Your task to perform on an android device: Go to calendar. Show me events next week Image 0: 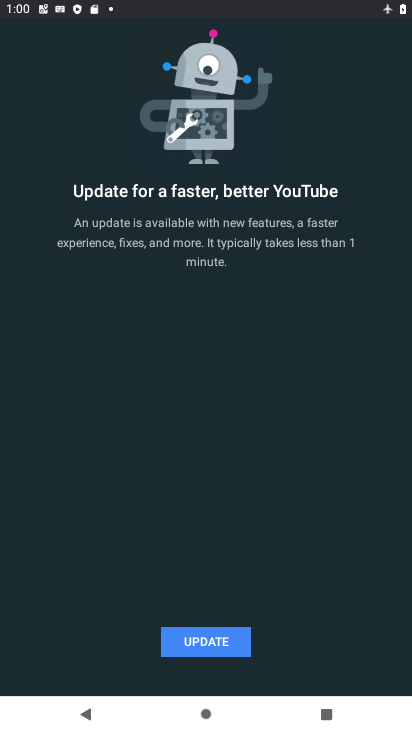
Step 0: press home button
Your task to perform on an android device: Go to calendar. Show me events next week Image 1: 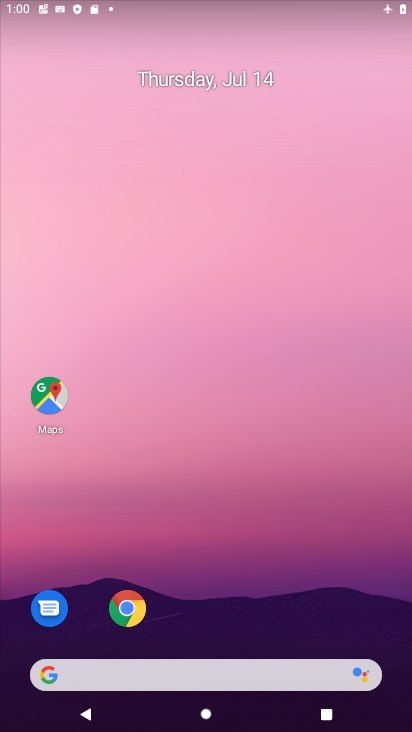
Step 1: drag from (384, 634) to (350, 93)
Your task to perform on an android device: Go to calendar. Show me events next week Image 2: 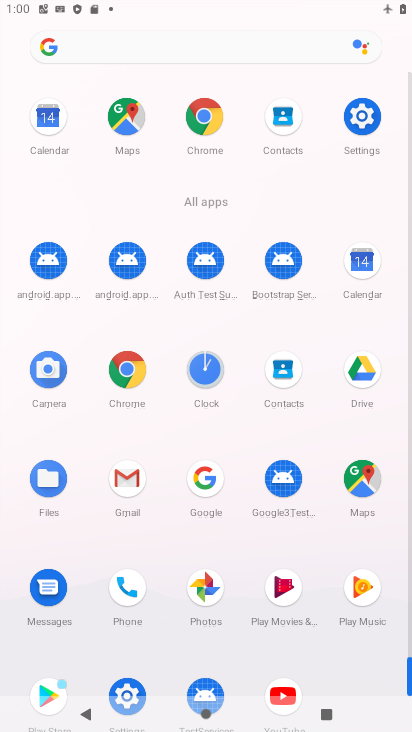
Step 2: click (363, 263)
Your task to perform on an android device: Go to calendar. Show me events next week Image 3: 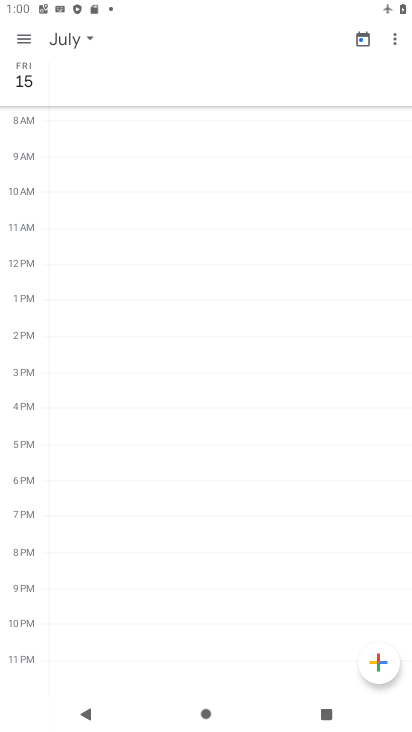
Step 3: click (20, 37)
Your task to perform on an android device: Go to calendar. Show me events next week Image 4: 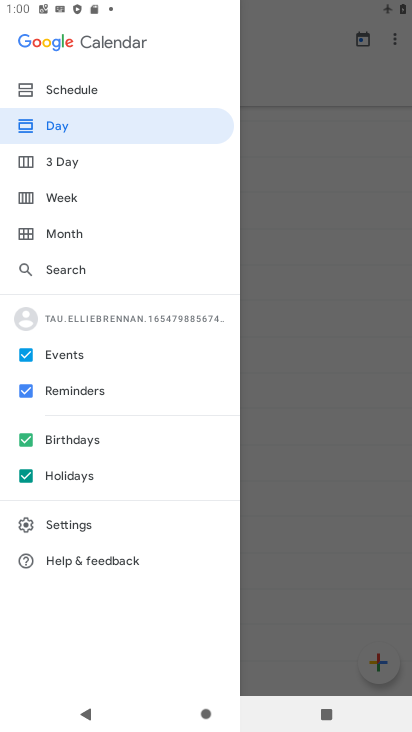
Step 4: click (61, 197)
Your task to perform on an android device: Go to calendar. Show me events next week Image 5: 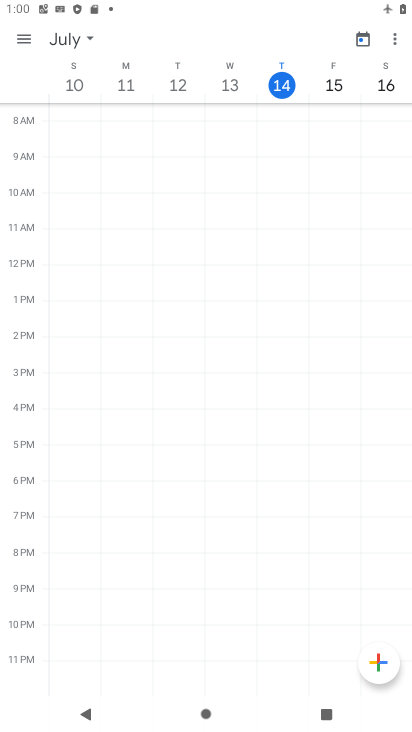
Step 5: click (89, 37)
Your task to perform on an android device: Go to calendar. Show me events next week Image 6: 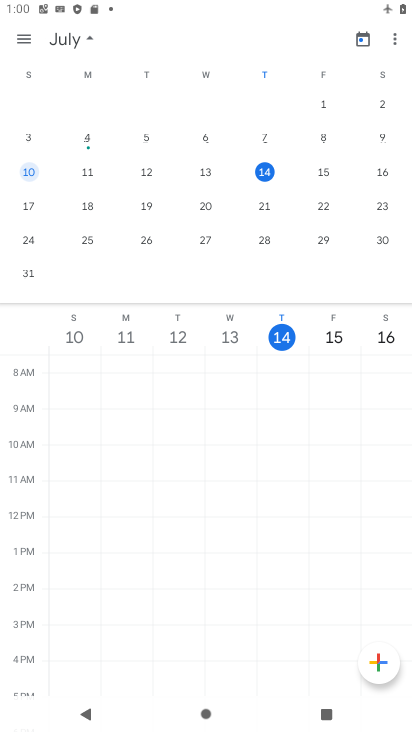
Step 6: click (27, 209)
Your task to perform on an android device: Go to calendar. Show me events next week Image 7: 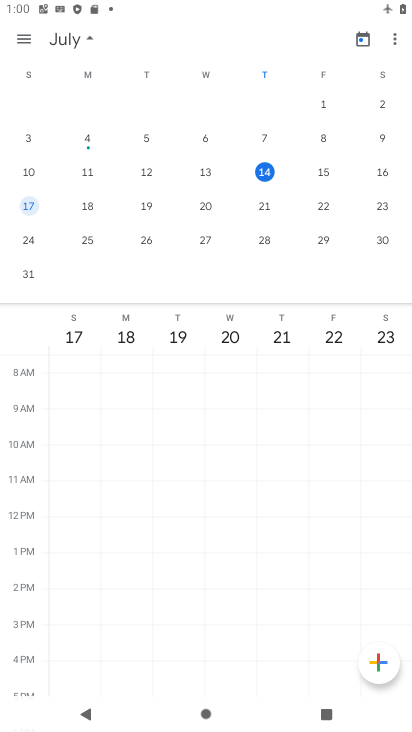
Step 7: task complete